Your task to perform on an android device: find photos in the google photos app Image 0: 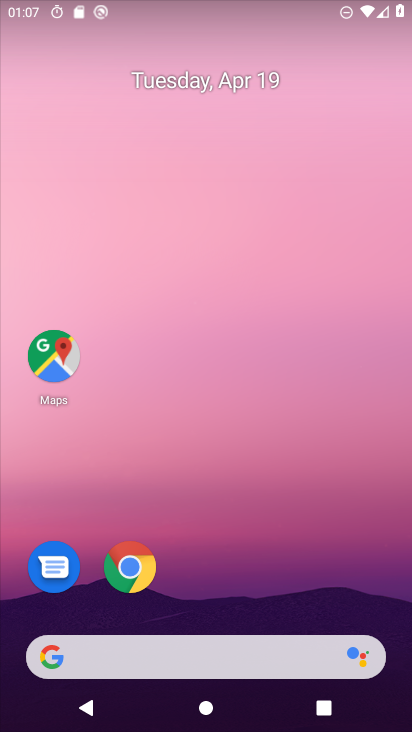
Step 0: drag from (286, 584) to (187, 107)
Your task to perform on an android device: find photos in the google photos app Image 1: 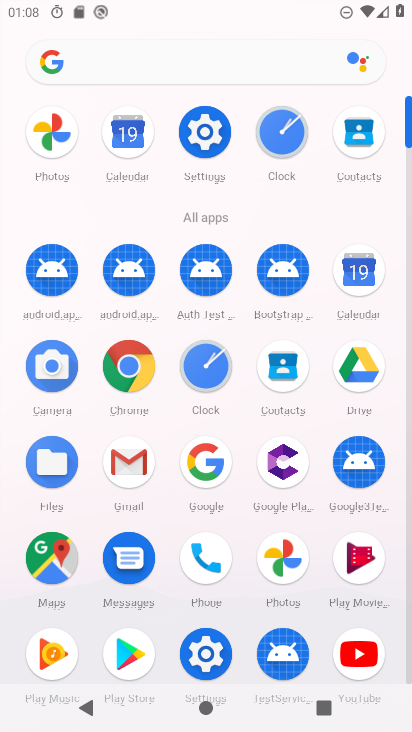
Step 1: click (289, 555)
Your task to perform on an android device: find photos in the google photos app Image 2: 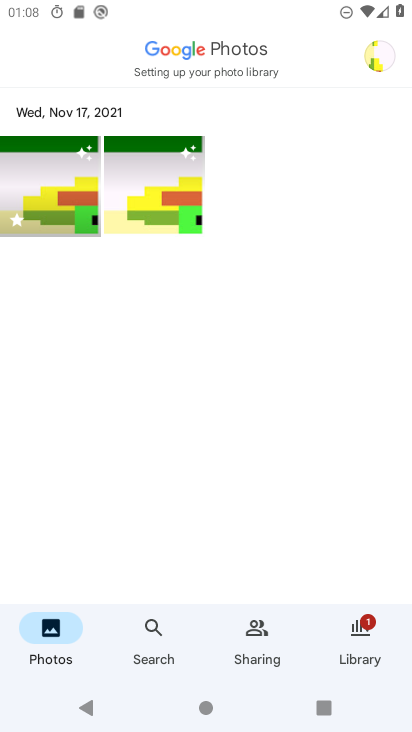
Step 2: click (64, 170)
Your task to perform on an android device: find photos in the google photos app Image 3: 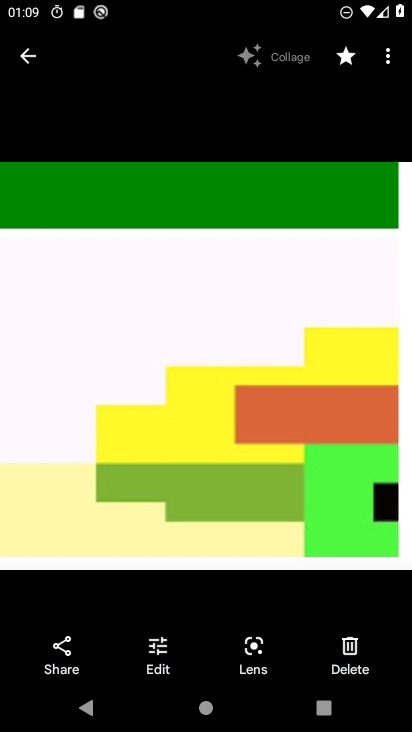
Step 3: task complete